Your task to perform on an android device: toggle sleep mode Image 0: 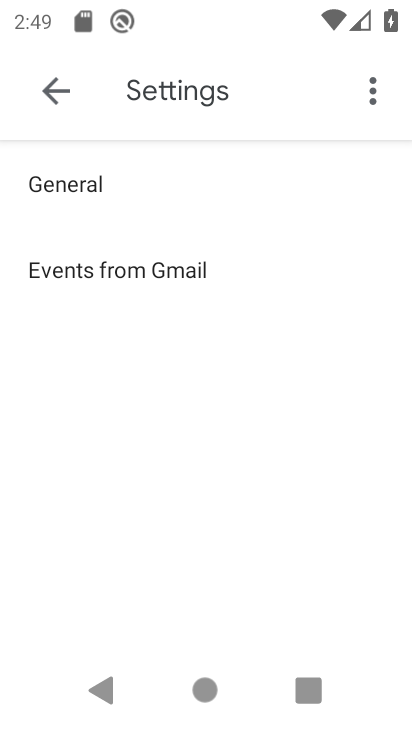
Step 0: press home button
Your task to perform on an android device: toggle sleep mode Image 1: 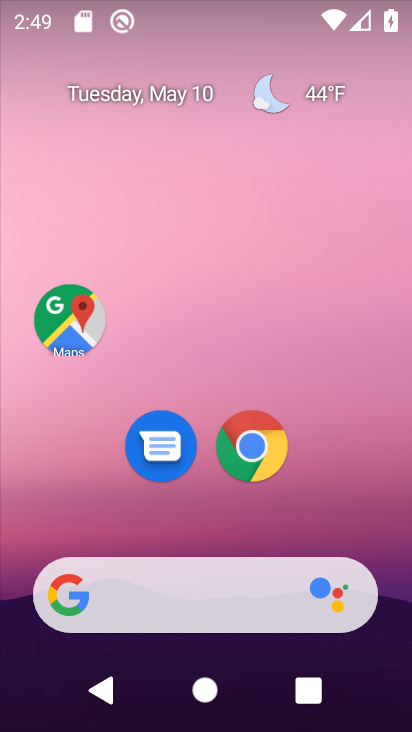
Step 1: drag from (355, 452) to (354, 66)
Your task to perform on an android device: toggle sleep mode Image 2: 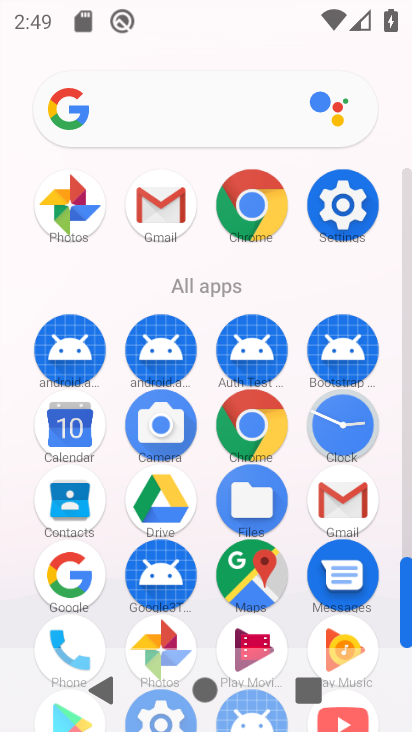
Step 2: click (345, 223)
Your task to perform on an android device: toggle sleep mode Image 3: 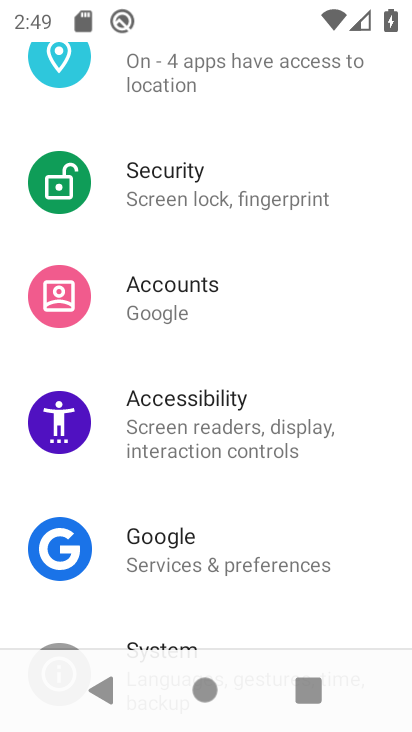
Step 3: drag from (301, 272) to (317, 559)
Your task to perform on an android device: toggle sleep mode Image 4: 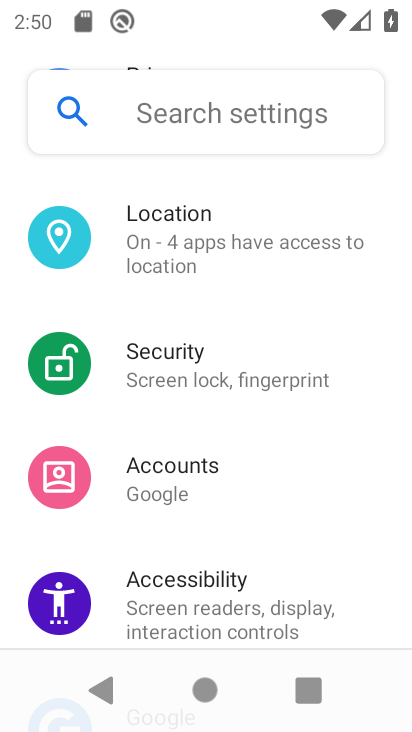
Step 4: drag from (222, 588) to (233, 264)
Your task to perform on an android device: toggle sleep mode Image 5: 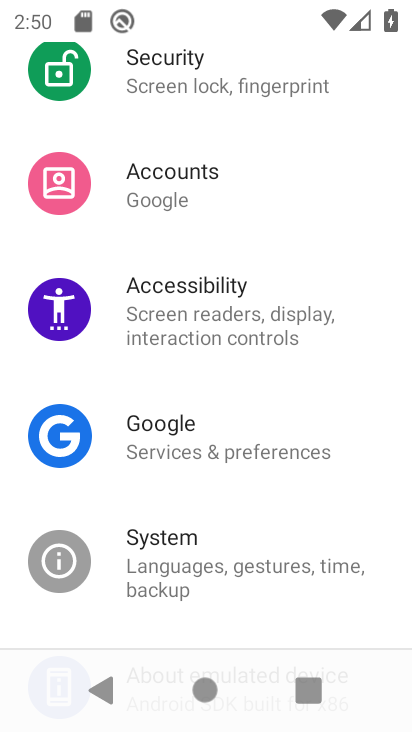
Step 5: drag from (205, 570) to (245, 204)
Your task to perform on an android device: toggle sleep mode Image 6: 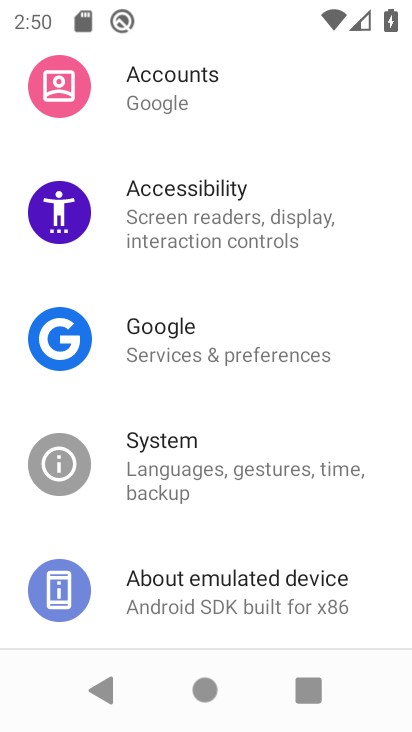
Step 6: drag from (244, 249) to (248, 564)
Your task to perform on an android device: toggle sleep mode Image 7: 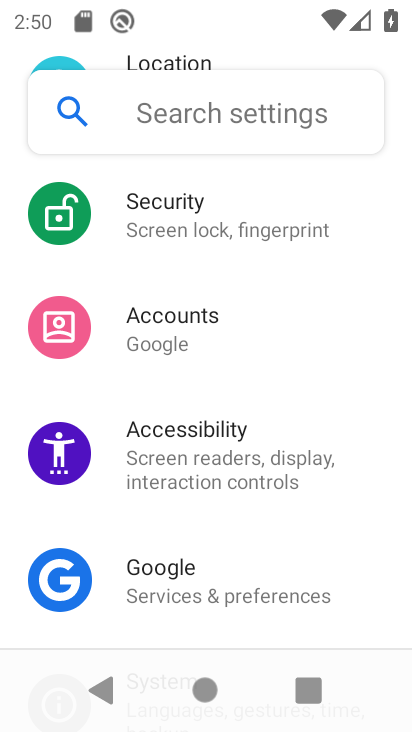
Step 7: drag from (281, 258) to (261, 637)
Your task to perform on an android device: toggle sleep mode Image 8: 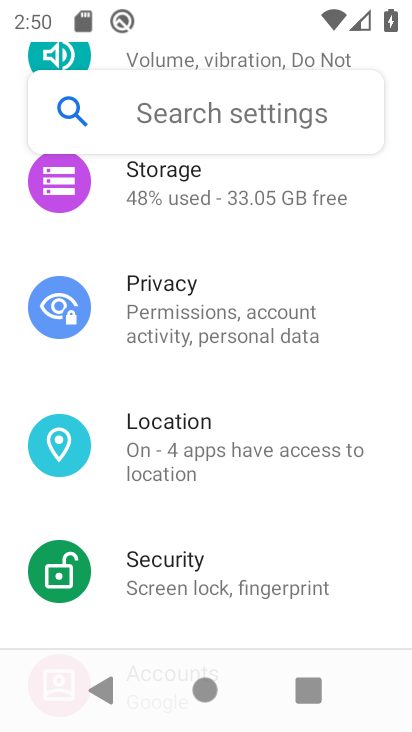
Step 8: drag from (238, 299) to (265, 607)
Your task to perform on an android device: toggle sleep mode Image 9: 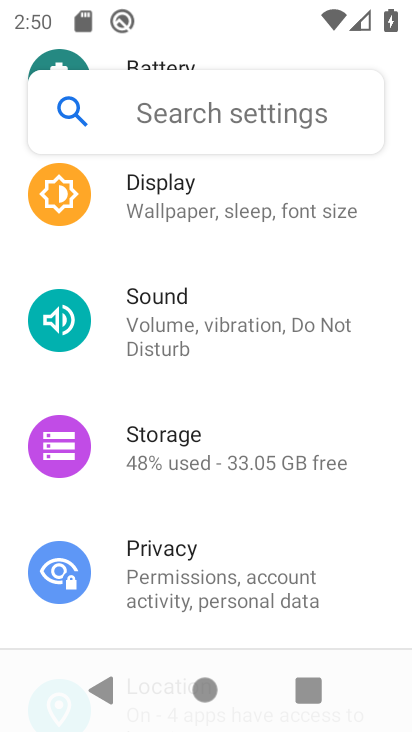
Step 9: drag from (267, 252) to (266, 565)
Your task to perform on an android device: toggle sleep mode Image 10: 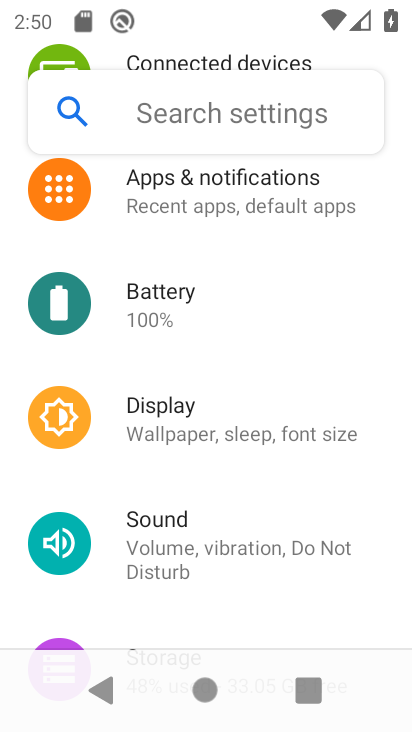
Step 10: drag from (268, 285) to (265, 525)
Your task to perform on an android device: toggle sleep mode Image 11: 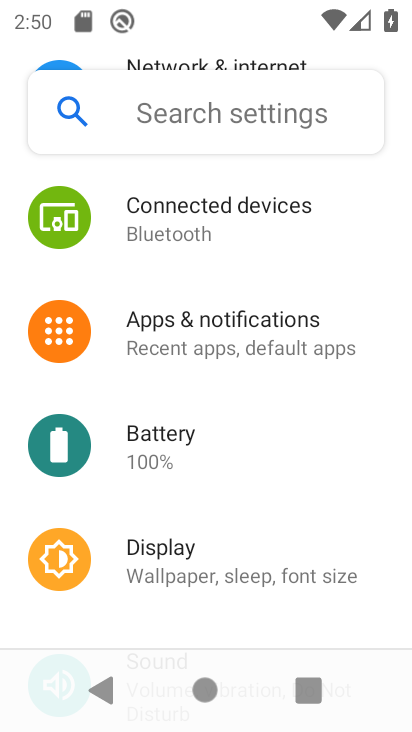
Step 11: drag from (277, 281) to (242, 575)
Your task to perform on an android device: toggle sleep mode Image 12: 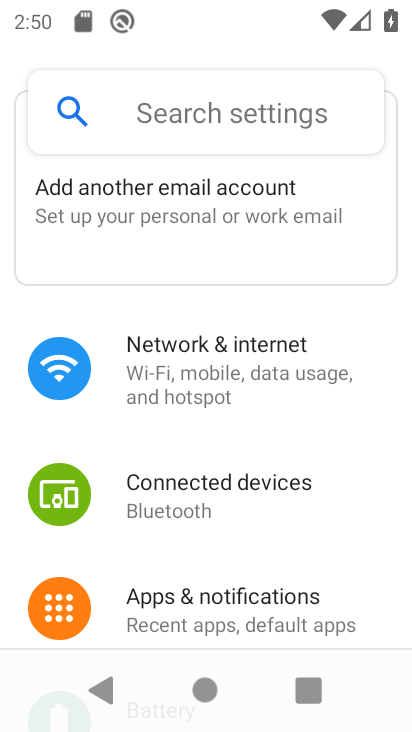
Step 12: drag from (244, 573) to (218, 333)
Your task to perform on an android device: toggle sleep mode Image 13: 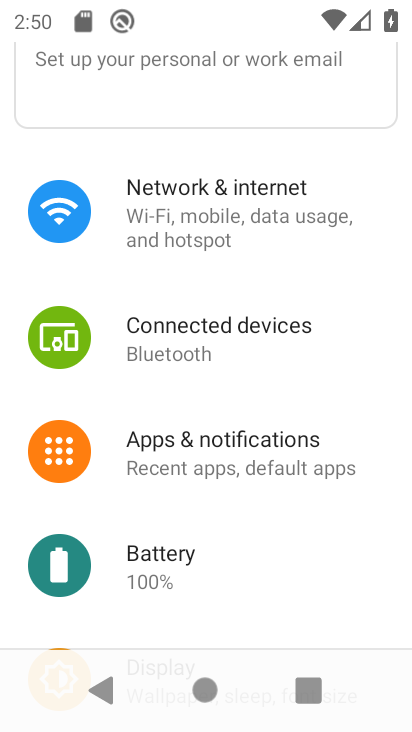
Step 13: drag from (226, 593) to (258, 177)
Your task to perform on an android device: toggle sleep mode Image 14: 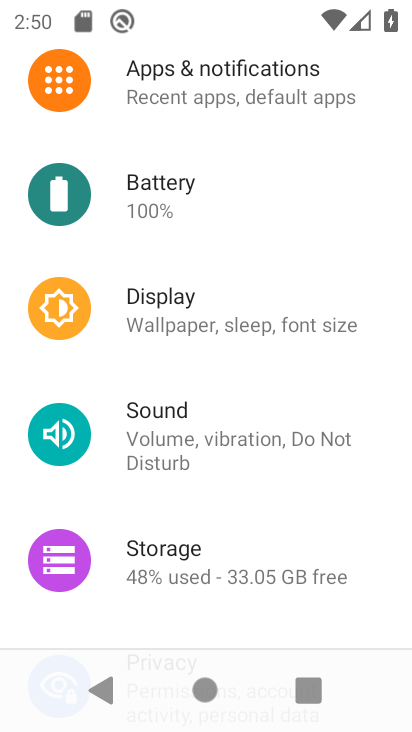
Step 14: drag from (212, 562) to (252, 237)
Your task to perform on an android device: toggle sleep mode Image 15: 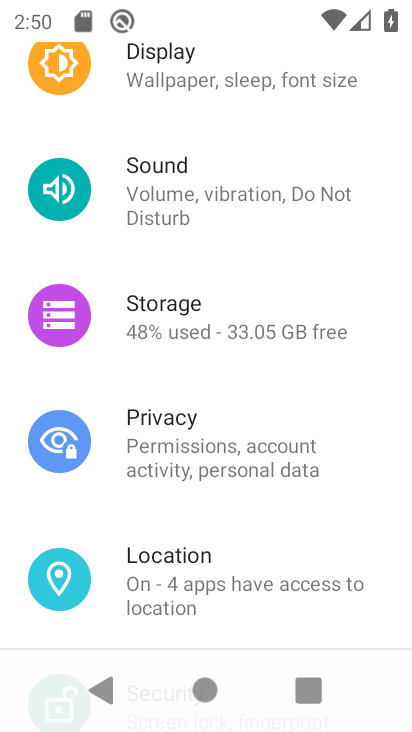
Step 15: drag from (276, 507) to (252, 276)
Your task to perform on an android device: toggle sleep mode Image 16: 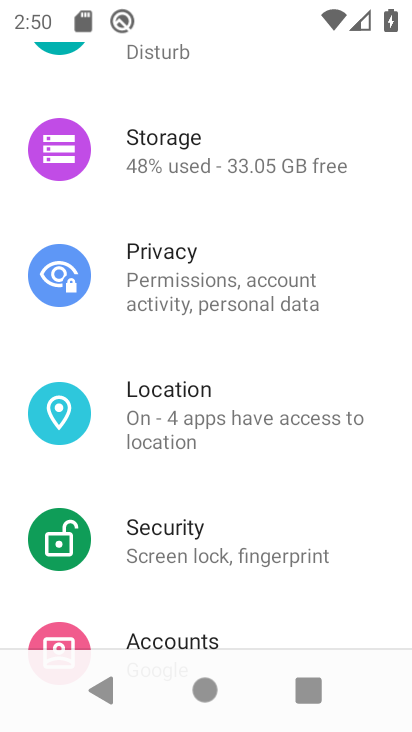
Step 16: drag from (240, 495) to (195, 162)
Your task to perform on an android device: toggle sleep mode Image 17: 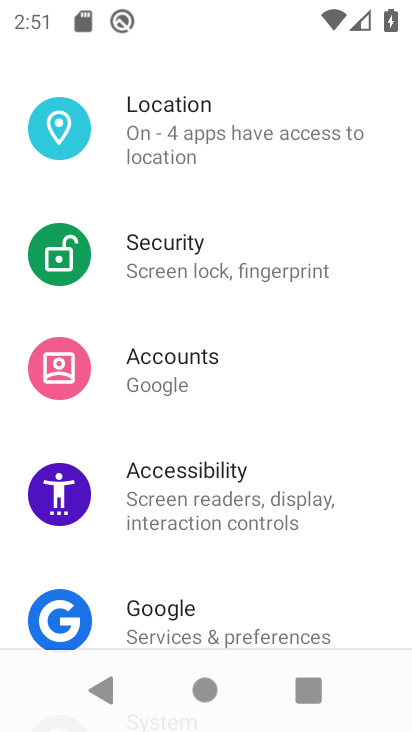
Step 17: drag from (276, 525) to (282, 247)
Your task to perform on an android device: toggle sleep mode Image 18: 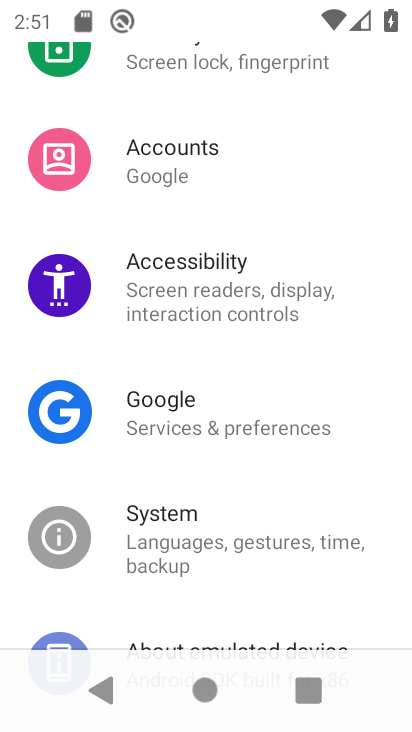
Step 18: drag from (195, 610) to (194, 266)
Your task to perform on an android device: toggle sleep mode Image 19: 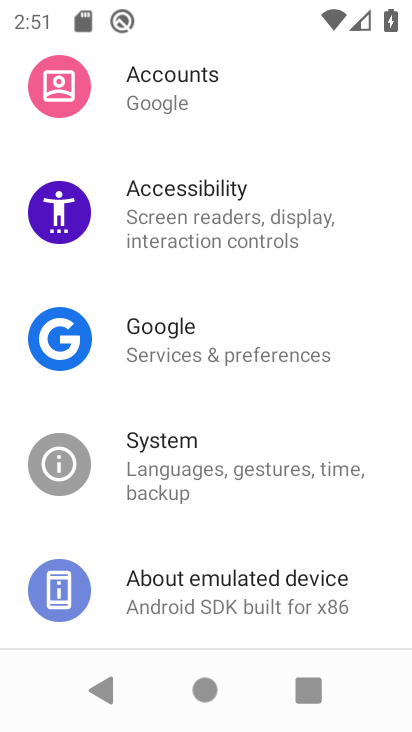
Step 19: drag from (223, 232) to (245, 589)
Your task to perform on an android device: toggle sleep mode Image 20: 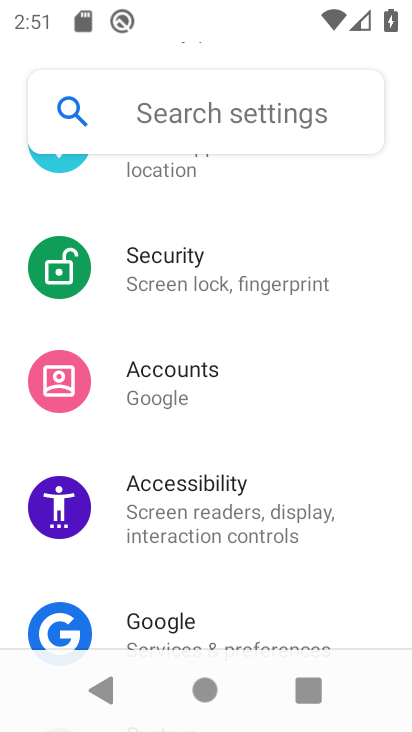
Step 20: drag from (226, 374) to (205, 586)
Your task to perform on an android device: toggle sleep mode Image 21: 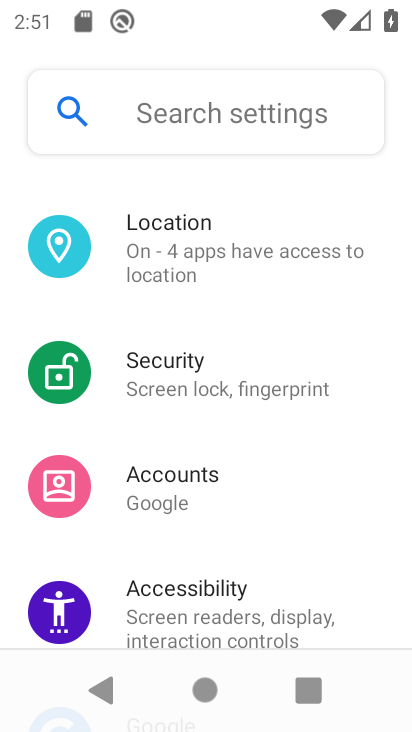
Step 21: drag from (234, 410) to (203, 582)
Your task to perform on an android device: toggle sleep mode Image 22: 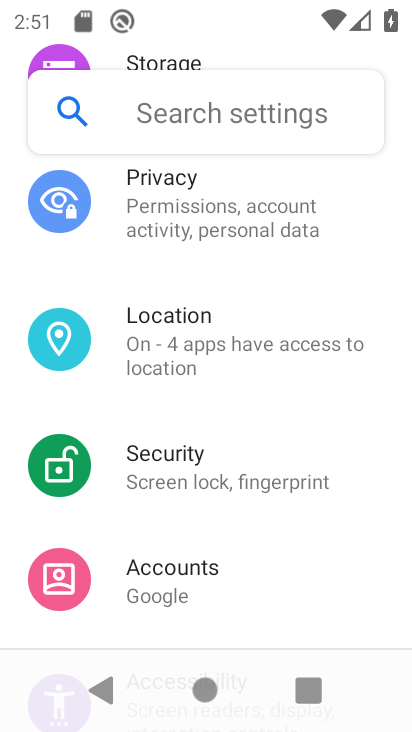
Step 22: drag from (241, 280) to (235, 548)
Your task to perform on an android device: toggle sleep mode Image 23: 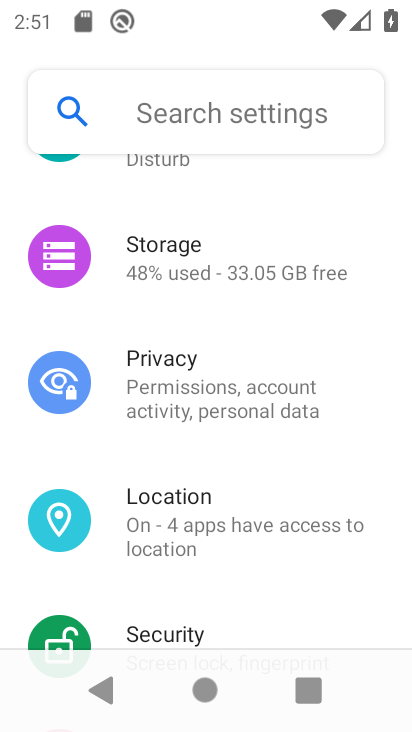
Step 23: drag from (249, 286) to (273, 583)
Your task to perform on an android device: toggle sleep mode Image 24: 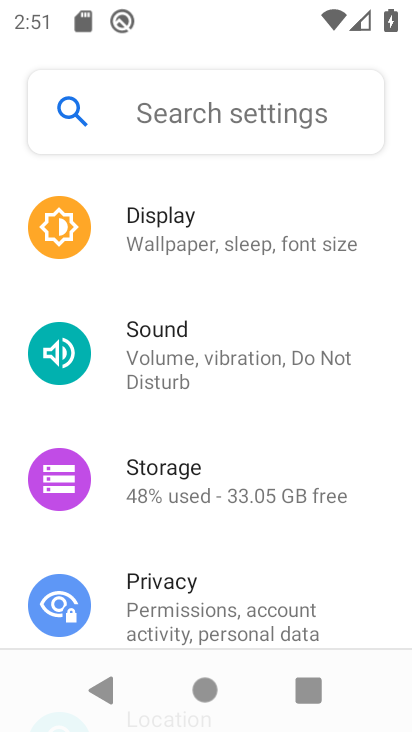
Step 24: drag from (231, 275) to (259, 576)
Your task to perform on an android device: toggle sleep mode Image 25: 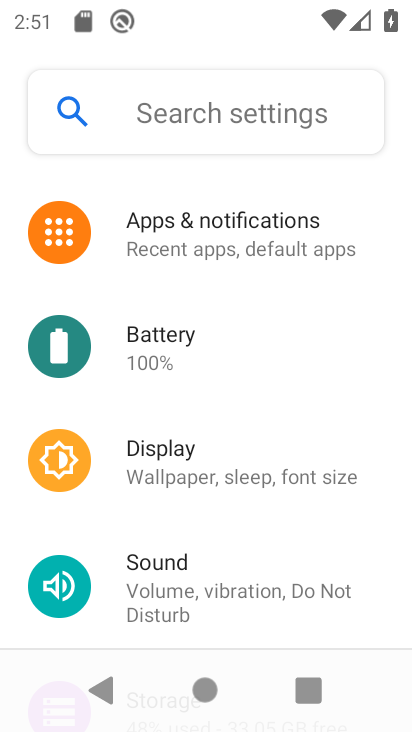
Step 25: click (192, 475)
Your task to perform on an android device: toggle sleep mode Image 26: 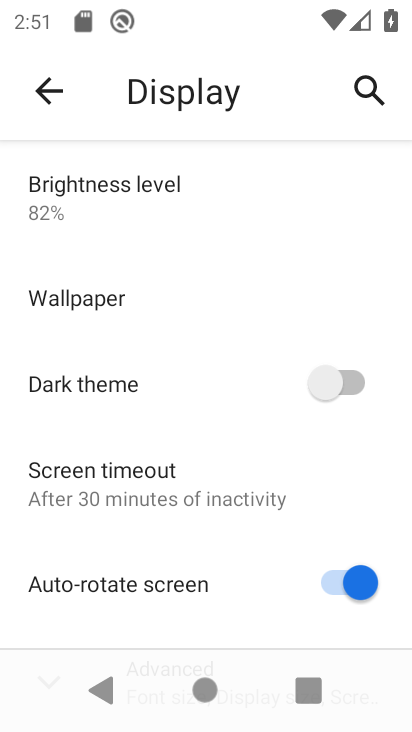
Step 26: drag from (203, 281) to (260, 527)
Your task to perform on an android device: toggle sleep mode Image 27: 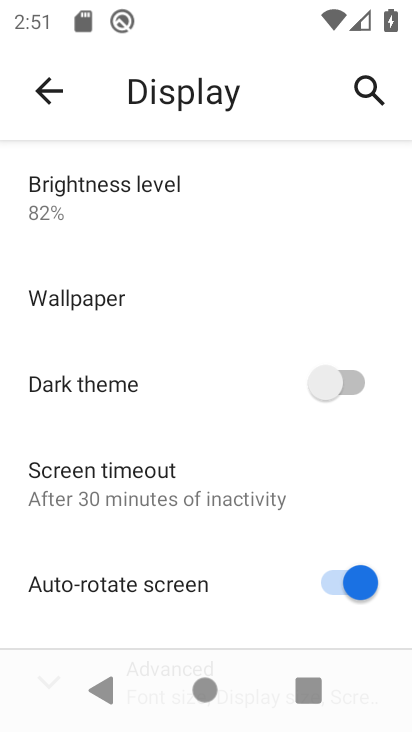
Step 27: drag from (192, 527) to (202, 335)
Your task to perform on an android device: toggle sleep mode Image 28: 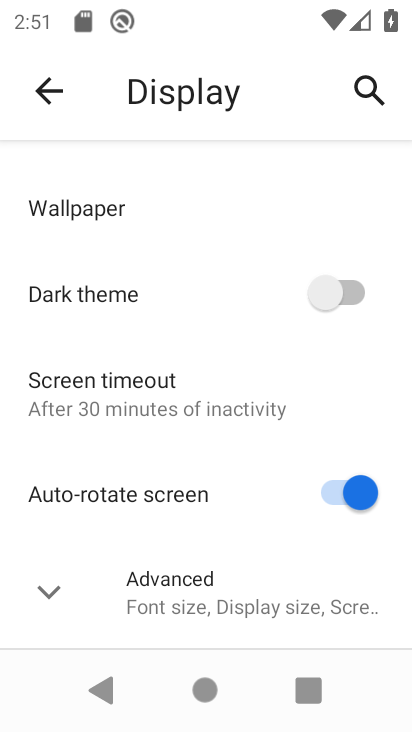
Step 28: click (184, 398)
Your task to perform on an android device: toggle sleep mode Image 29: 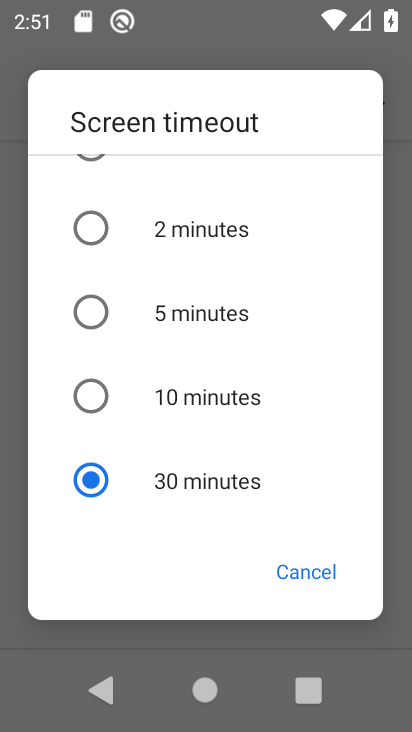
Step 29: click (89, 312)
Your task to perform on an android device: toggle sleep mode Image 30: 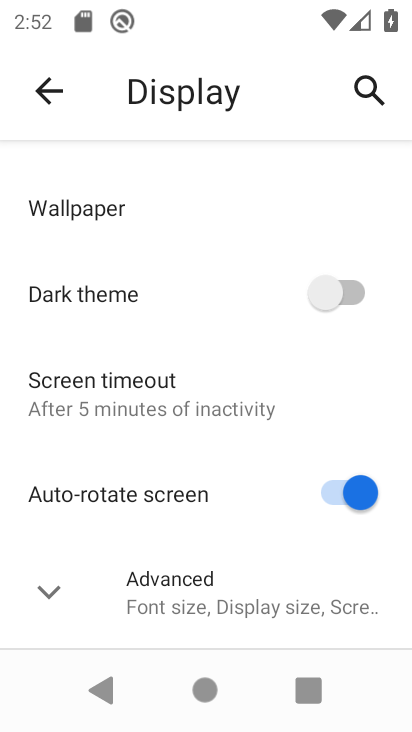
Step 30: task complete